Your task to perform on an android device: turn off data saver in the chrome app Image 0: 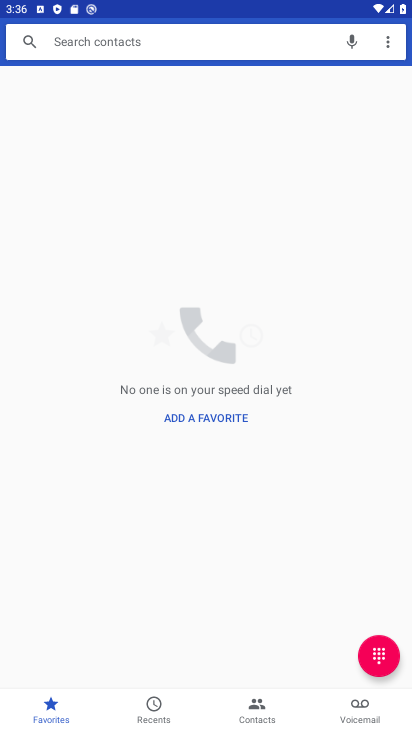
Step 0: press home button
Your task to perform on an android device: turn off data saver in the chrome app Image 1: 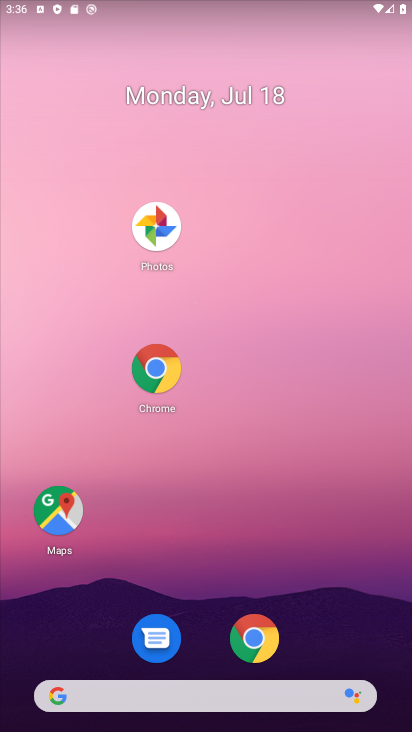
Step 1: click (174, 369)
Your task to perform on an android device: turn off data saver in the chrome app Image 2: 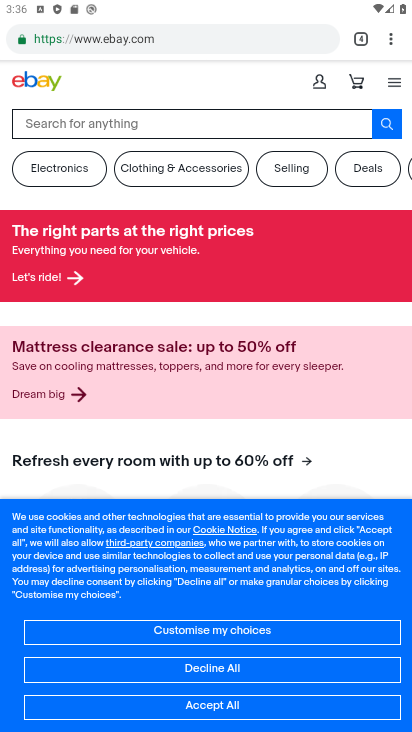
Step 2: click (397, 26)
Your task to perform on an android device: turn off data saver in the chrome app Image 3: 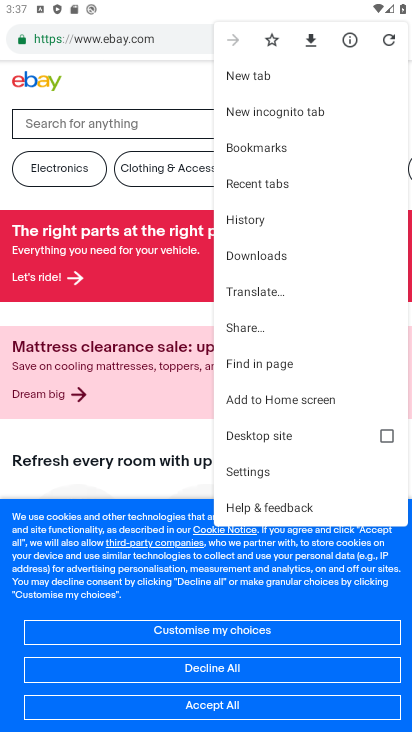
Step 3: click (267, 471)
Your task to perform on an android device: turn off data saver in the chrome app Image 4: 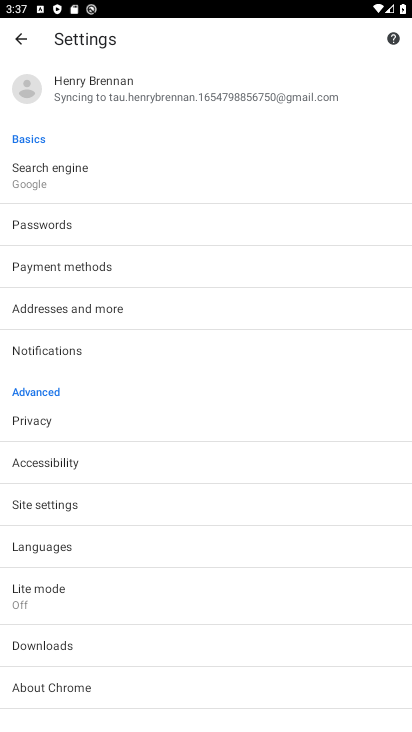
Step 4: click (96, 600)
Your task to perform on an android device: turn off data saver in the chrome app Image 5: 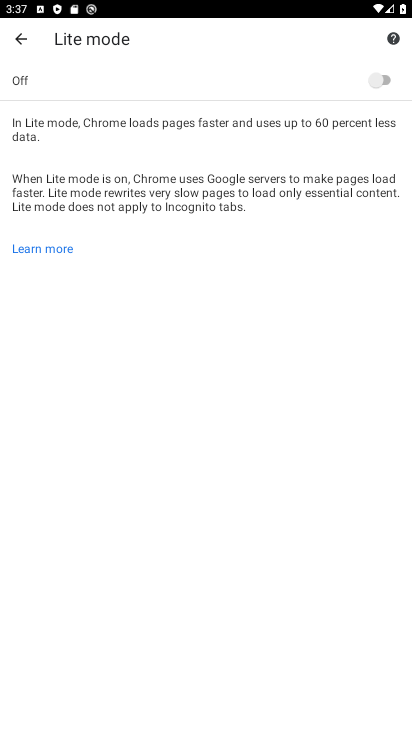
Step 5: click (380, 74)
Your task to perform on an android device: turn off data saver in the chrome app Image 6: 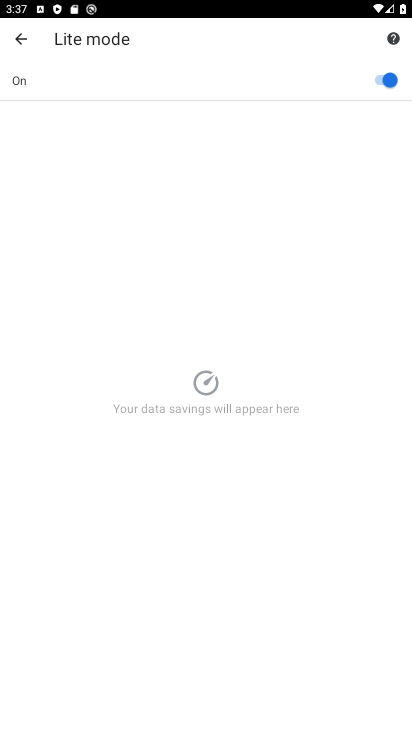
Step 6: task complete